Your task to perform on an android device: toggle notification dots Image 0: 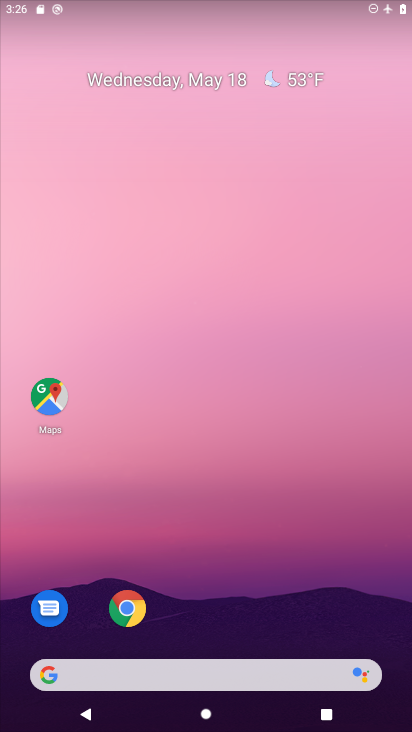
Step 0: drag from (164, 658) to (187, 224)
Your task to perform on an android device: toggle notification dots Image 1: 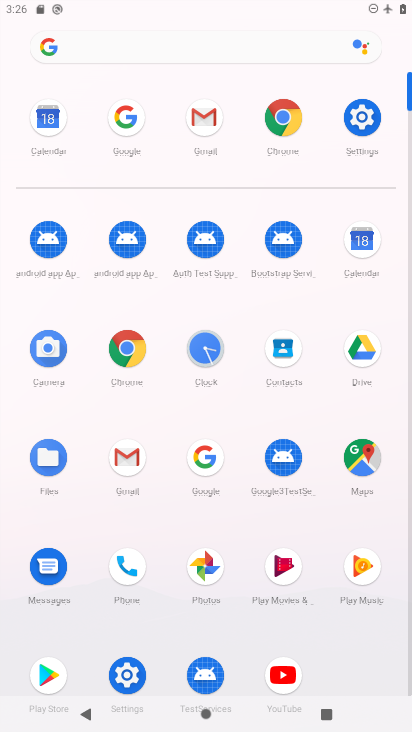
Step 1: click (354, 119)
Your task to perform on an android device: toggle notification dots Image 2: 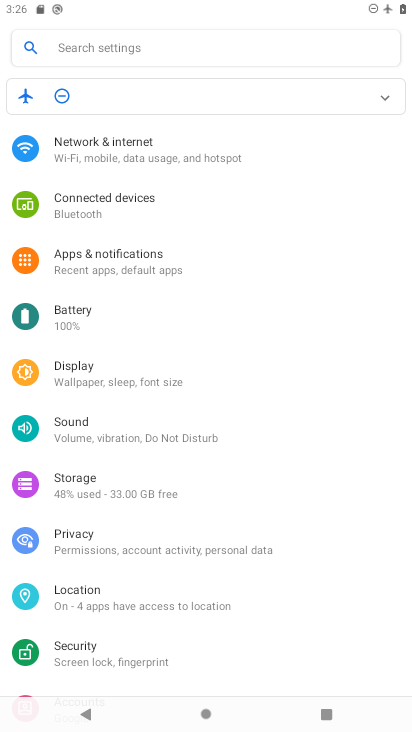
Step 2: click (67, 265)
Your task to perform on an android device: toggle notification dots Image 3: 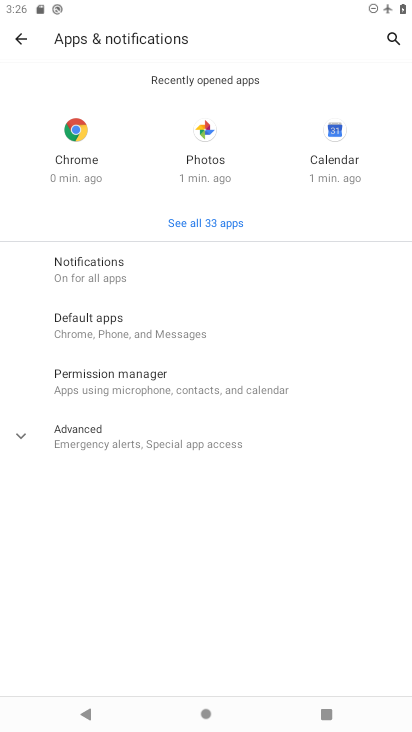
Step 3: click (67, 443)
Your task to perform on an android device: toggle notification dots Image 4: 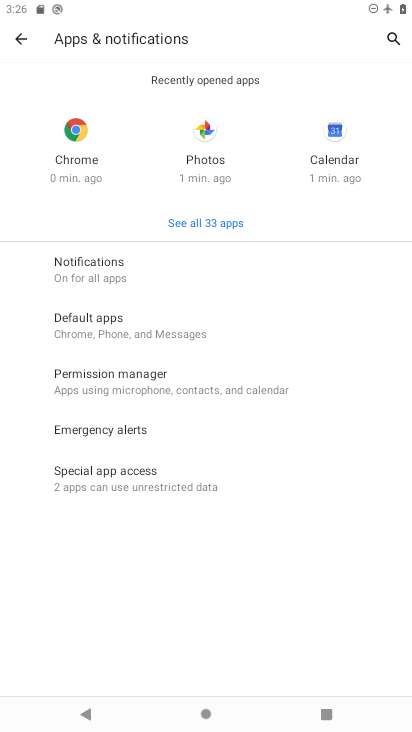
Step 4: click (81, 256)
Your task to perform on an android device: toggle notification dots Image 5: 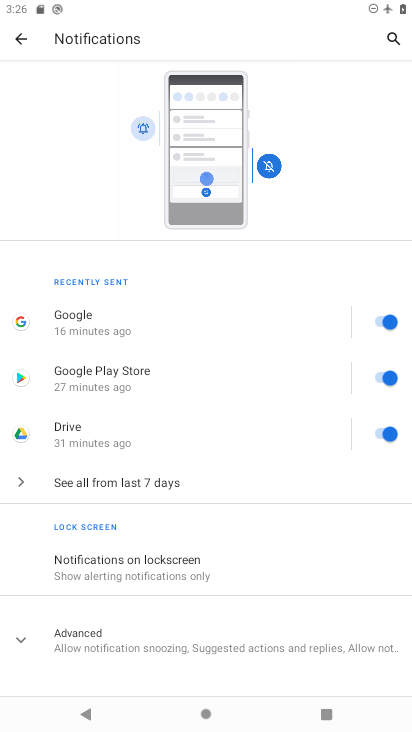
Step 5: click (108, 640)
Your task to perform on an android device: toggle notification dots Image 6: 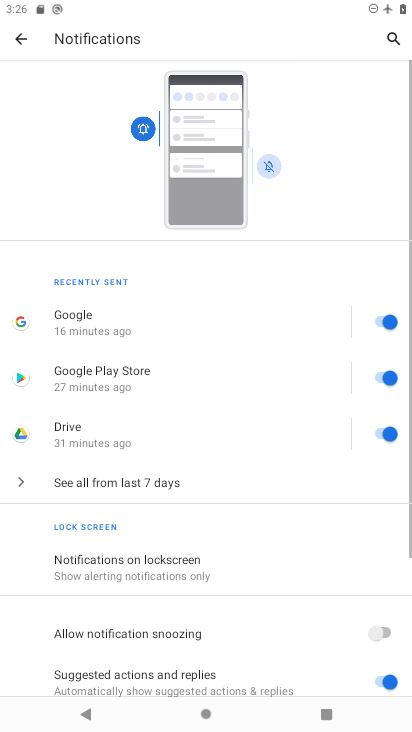
Step 6: drag from (187, 652) to (215, 377)
Your task to perform on an android device: toggle notification dots Image 7: 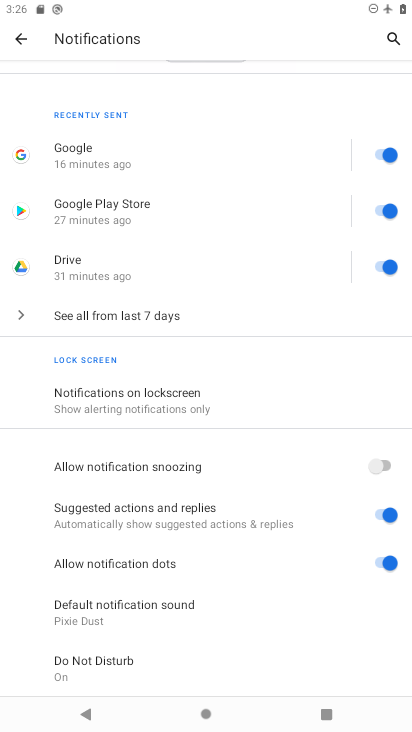
Step 7: click (383, 567)
Your task to perform on an android device: toggle notification dots Image 8: 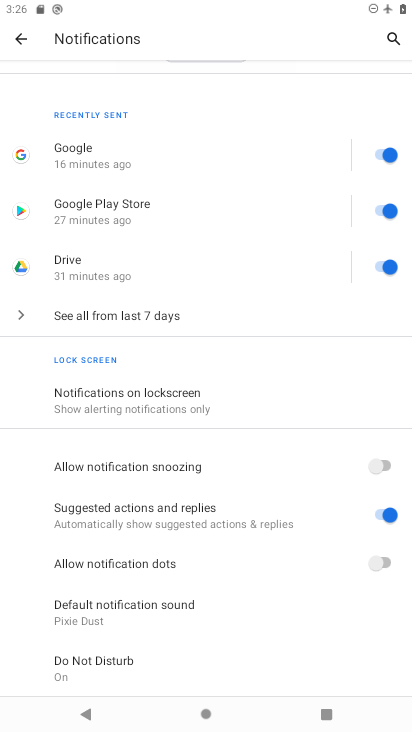
Step 8: task complete